Your task to perform on an android device: turn off picture-in-picture Image 0: 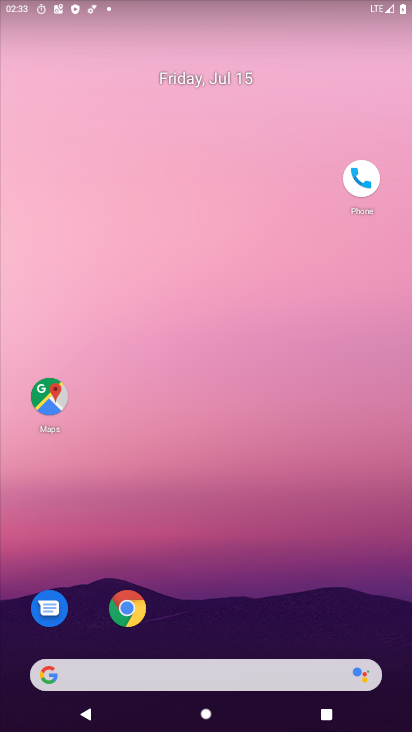
Step 0: drag from (197, 535) to (236, 161)
Your task to perform on an android device: turn off picture-in-picture Image 1: 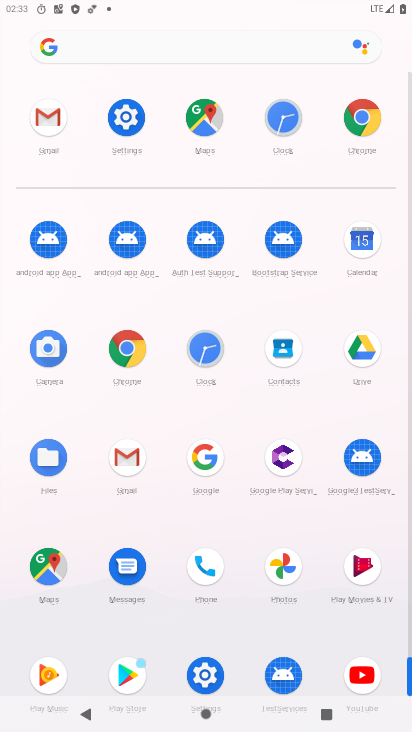
Step 1: click (201, 670)
Your task to perform on an android device: turn off picture-in-picture Image 2: 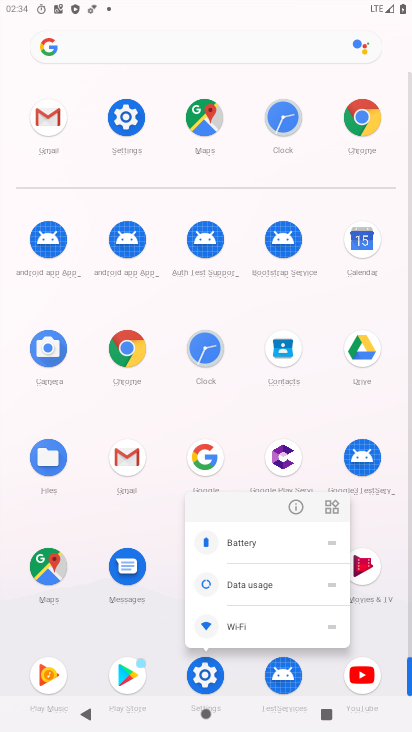
Step 2: click (297, 504)
Your task to perform on an android device: turn off picture-in-picture Image 3: 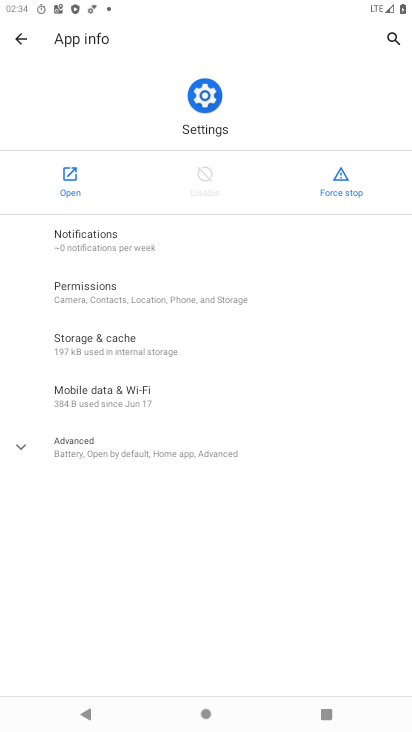
Step 3: click (65, 182)
Your task to perform on an android device: turn off picture-in-picture Image 4: 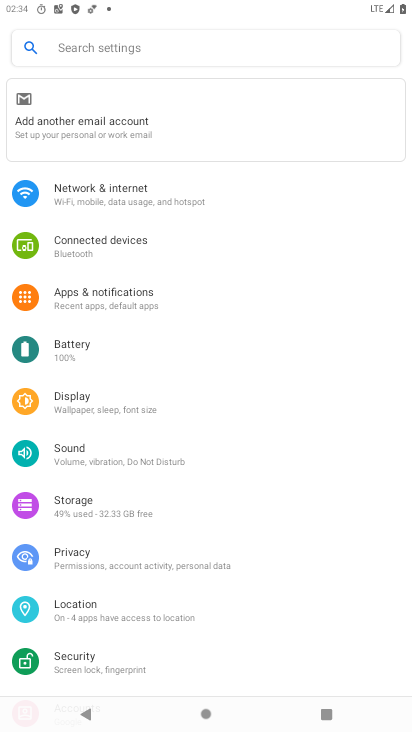
Step 4: drag from (117, 605) to (205, 338)
Your task to perform on an android device: turn off picture-in-picture Image 5: 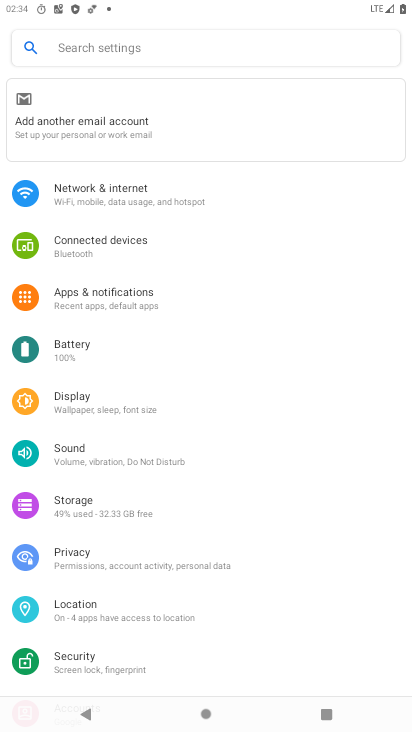
Step 5: drag from (242, 667) to (372, 430)
Your task to perform on an android device: turn off picture-in-picture Image 6: 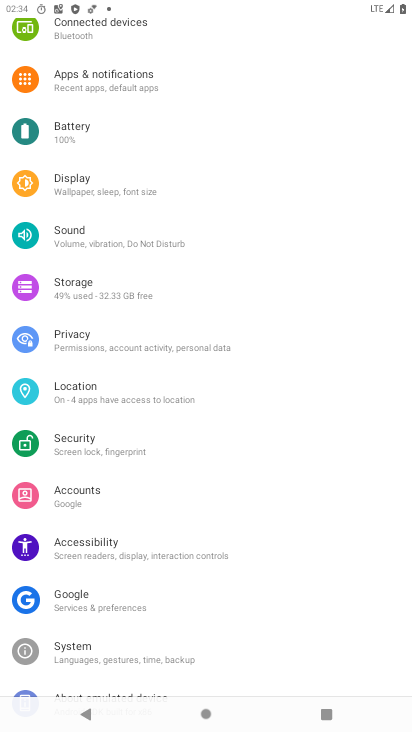
Step 6: drag from (144, 531) to (198, 212)
Your task to perform on an android device: turn off picture-in-picture Image 7: 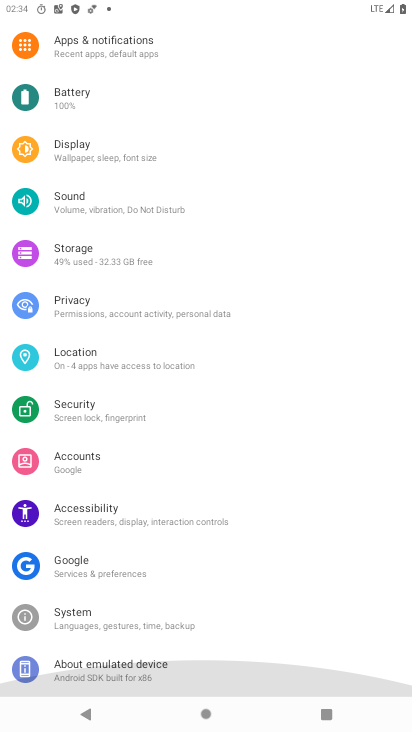
Step 7: drag from (210, 187) to (296, 556)
Your task to perform on an android device: turn off picture-in-picture Image 8: 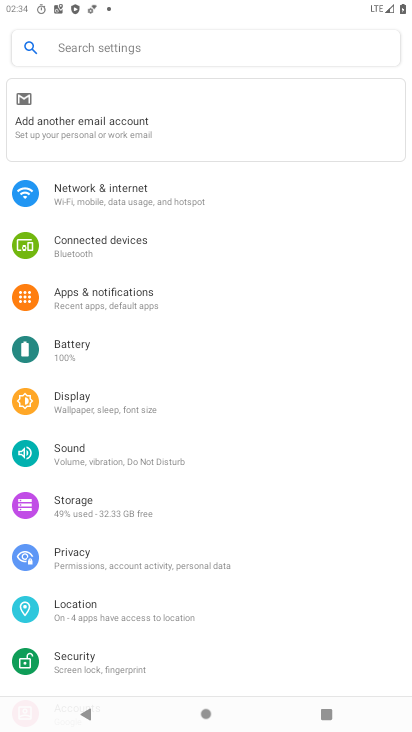
Step 8: drag from (154, 572) to (276, 174)
Your task to perform on an android device: turn off picture-in-picture Image 9: 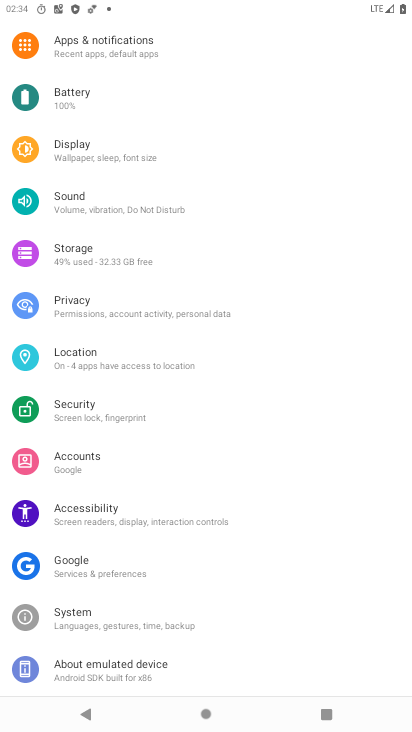
Step 9: drag from (229, 576) to (253, 355)
Your task to perform on an android device: turn off picture-in-picture Image 10: 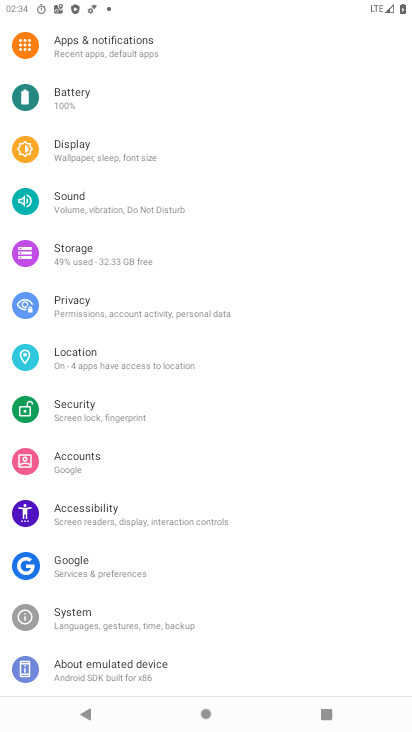
Step 10: drag from (216, 556) to (271, 373)
Your task to perform on an android device: turn off picture-in-picture Image 11: 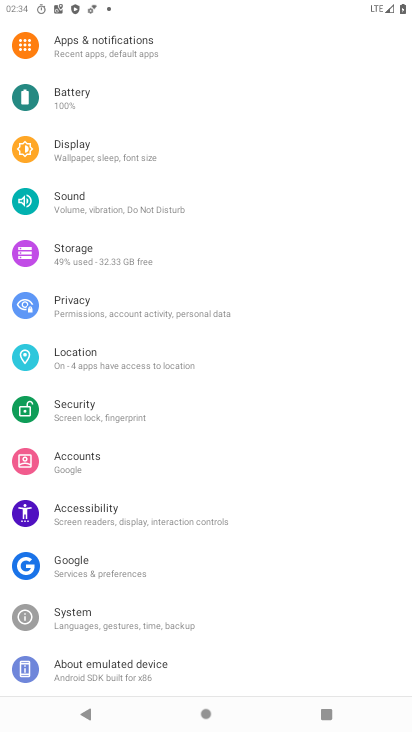
Step 11: drag from (283, 274) to (221, 631)
Your task to perform on an android device: turn off picture-in-picture Image 12: 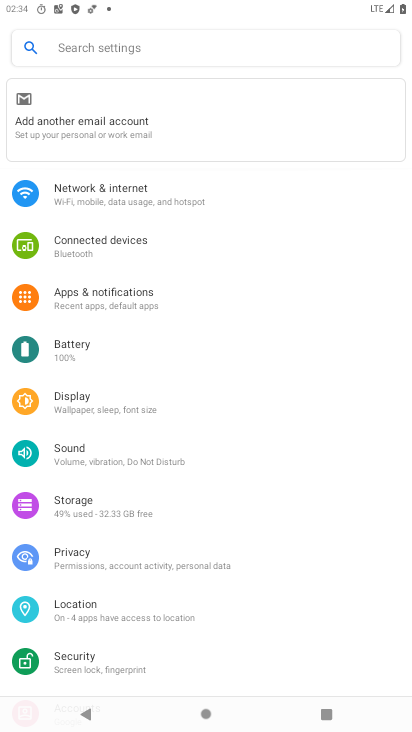
Step 12: drag from (219, 620) to (264, 320)
Your task to perform on an android device: turn off picture-in-picture Image 13: 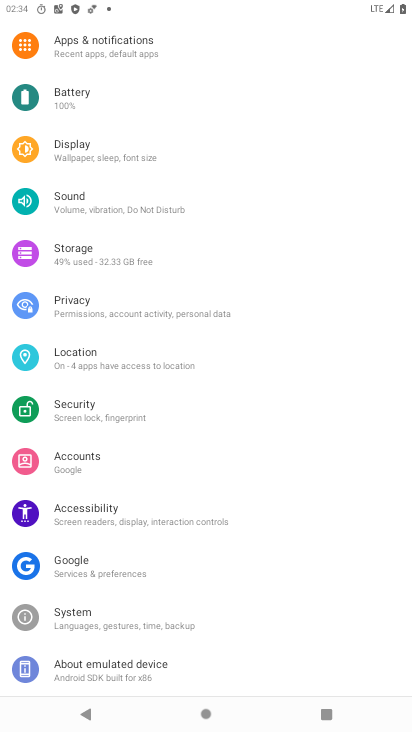
Step 13: drag from (198, 609) to (271, 322)
Your task to perform on an android device: turn off picture-in-picture Image 14: 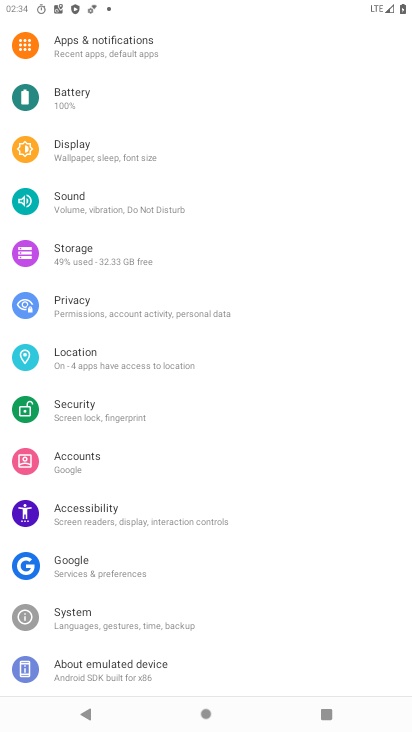
Step 14: click (194, 35)
Your task to perform on an android device: turn off picture-in-picture Image 15: 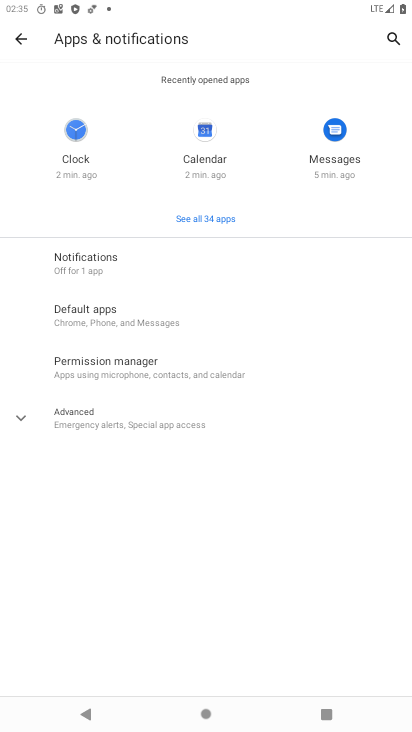
Step 15: click (123, 406)
Your task to perform on an android device: turn off picture-in-picture Image 16: 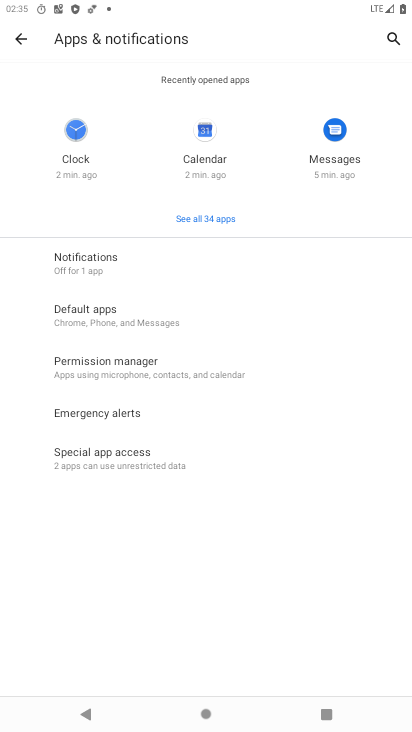
Step 16: click (123, 452)
Your task to perform on an android device: turn off picture-in-picture Image 17: 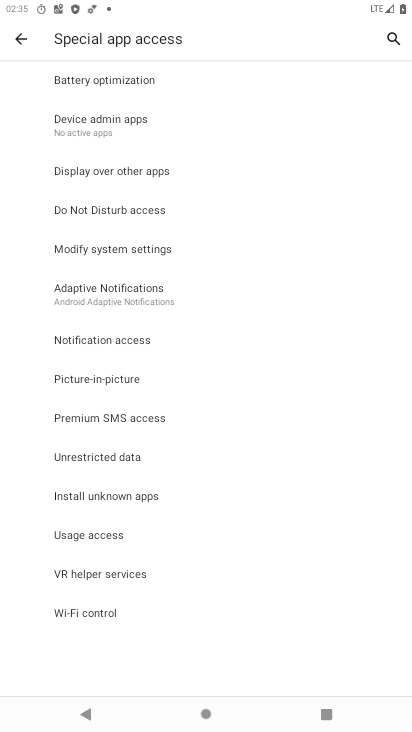
Step 17: click (127, 371)
Your task to perform on an android device: turn off picture-in-picture Image 18: 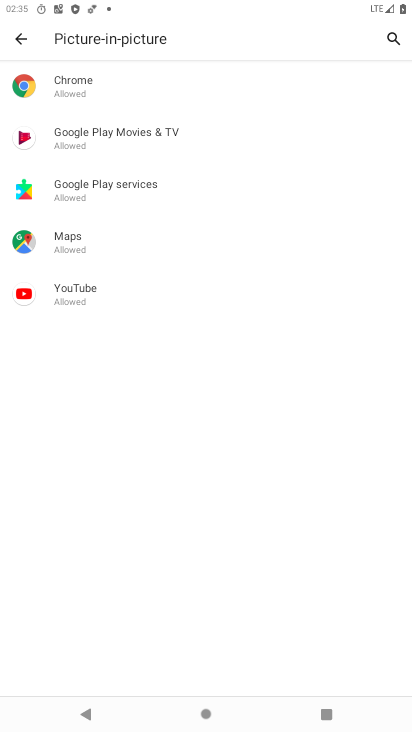
Step 18: task complete